Your task to perform on an android device: Check the weather Image 0: 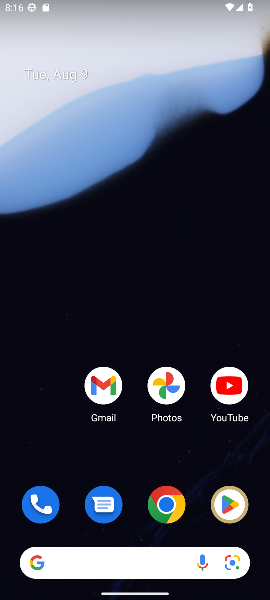
Step 0: drag from (138, 467) to (127, 64)
Your task to perform on an android device: Check the weather Image 1: 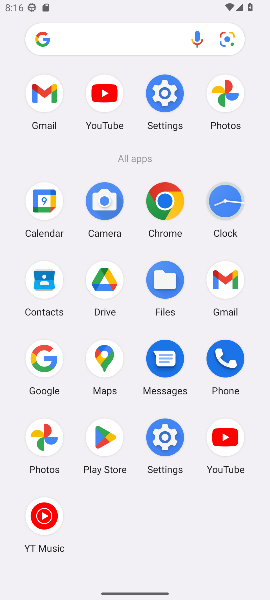
Step 1: click (41, 349)
Your task to perform on an android device: Check the weather Image 2: 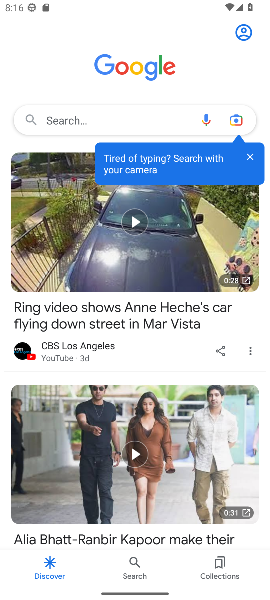
Step 2: click (82, 124)
Your task to perform on an android device: Check the weather Image 3: 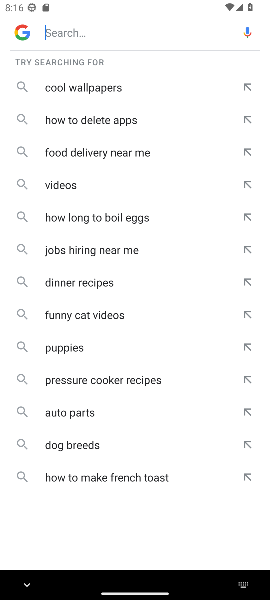
Step 3: type "weather"
Your task to perform on an android device: Check the weather Image 4: 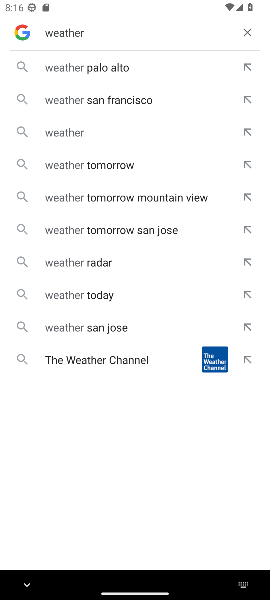
Step 4: click (50, 129)
Your task to perform on an android device: Check the weather Image 5: 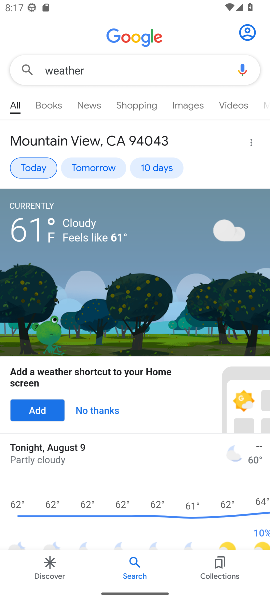
Step 5: task complete